Your task to perform on an android device: toggle javascript in the chrome app Image 0: 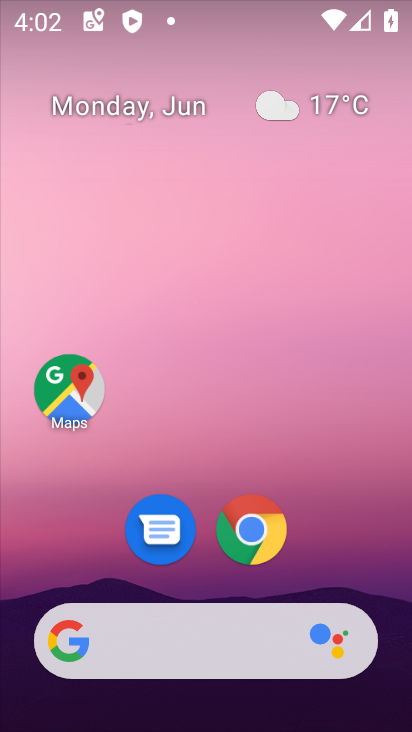
Step 0: click (253, 526)
Your task to perform on an android device: toggle javascript in the chrome app Image 1: 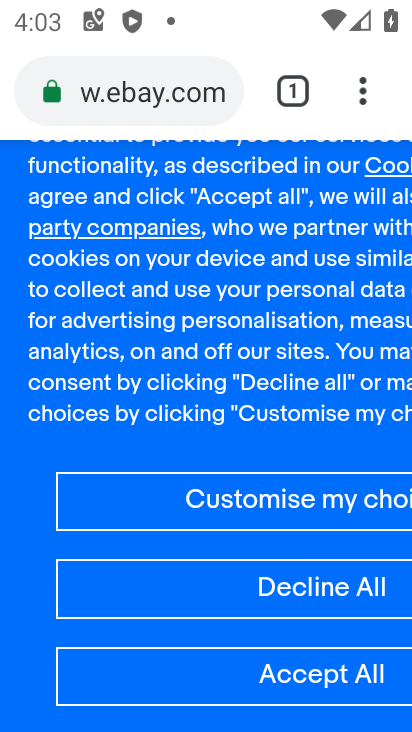
Step 1: click (366, 97)
Your task to perform on an android device: toggle javascript in the chrome app Image 2: 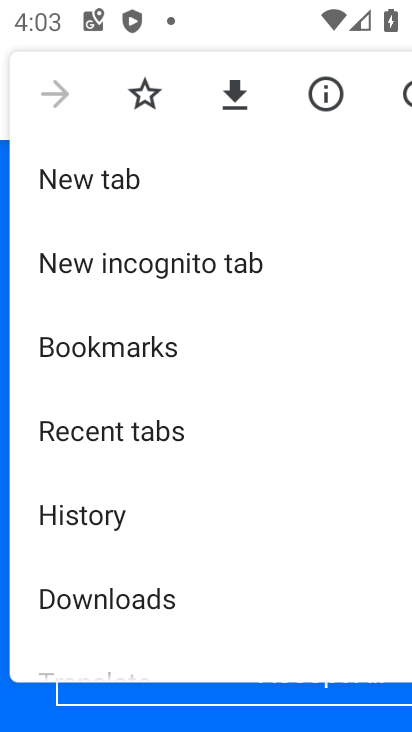
Step 2: drag from (113, 591) to (172, 307)
Your task to perform on an android device: toggle javascript in the chrome app Image 3: 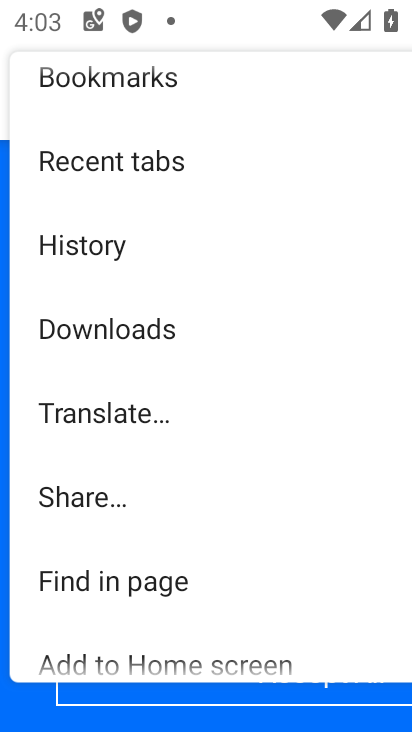
Step 3: drag from (170, 608) to (268, 337)
Your task to perform on an android device: toggle javascript in the chrome app Image 4: 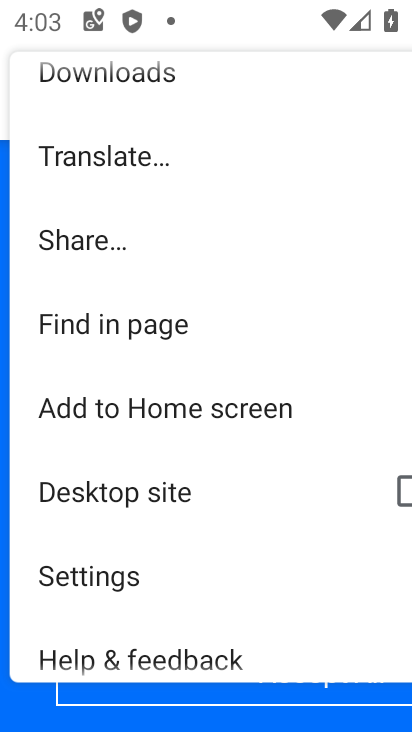
Step 4: click (114, 590)
Your task to perform on an android device: toggle javascript in the chrome app Image 5: 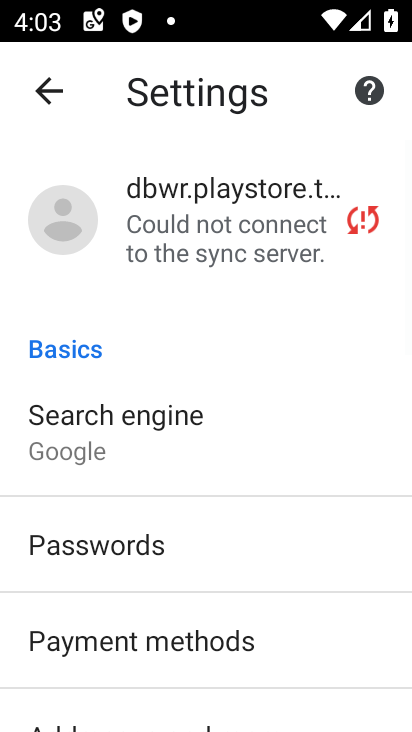
Step 5: drag from (126, 621) to (226, 296)
Your task to perform on an android device: toggle javascript in the chrome app Image 6: 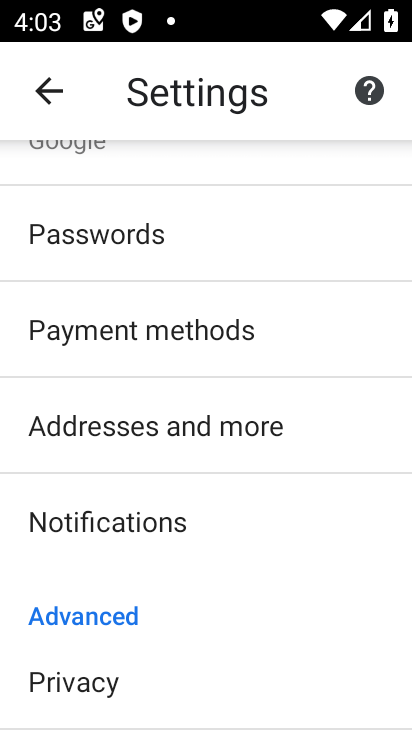
Step 6: drag from (160, 600) to (257, 302)
Your task to perform on an android device: toggle javascript in the chrome app Image 7: 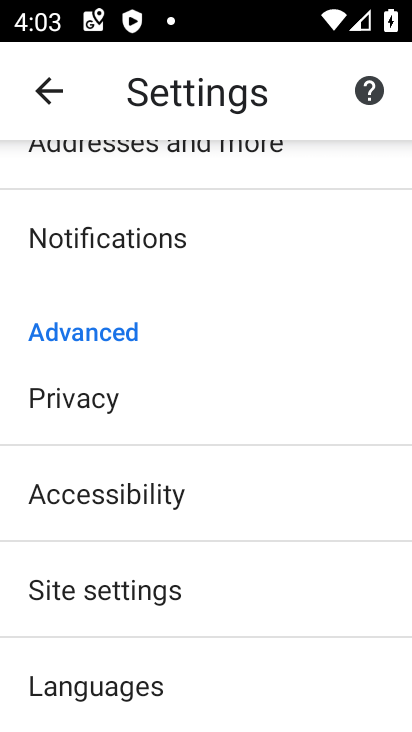
Step 7: click (131, 584)
Your task to perform on an android device: toggle javascript in the chrome app Image 8: 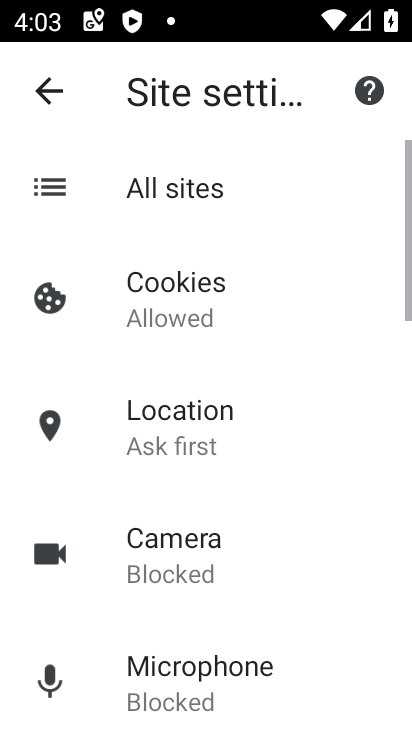
Step 8: drag from (200, 636) to (305, 339)
Your task to perform on an android device: toggle javascript in the chrome app Image 9: 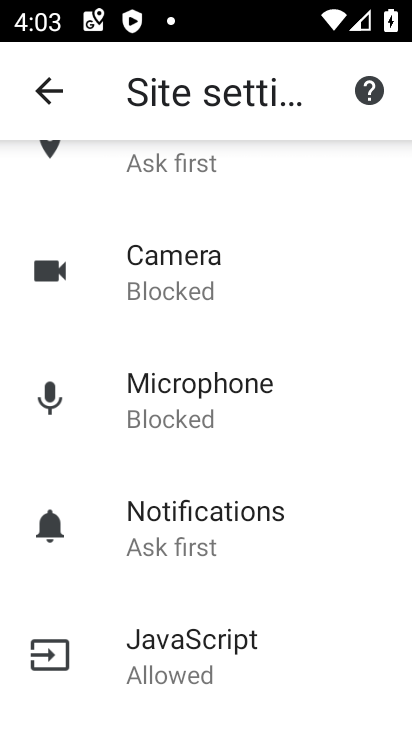
Step 9: click (203, 644)
Your task to perform on an android device: toggle javascript in the chrome app Image 10: 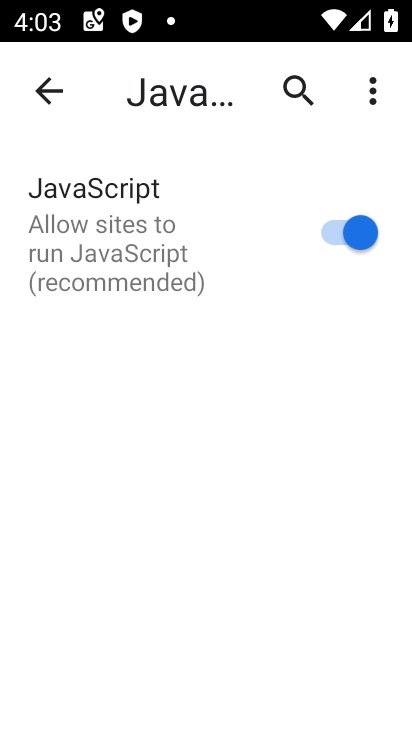
Step 10: click (343, 244)
Your task to perform on an android device: toggle javascript in the chrome app Image 11: 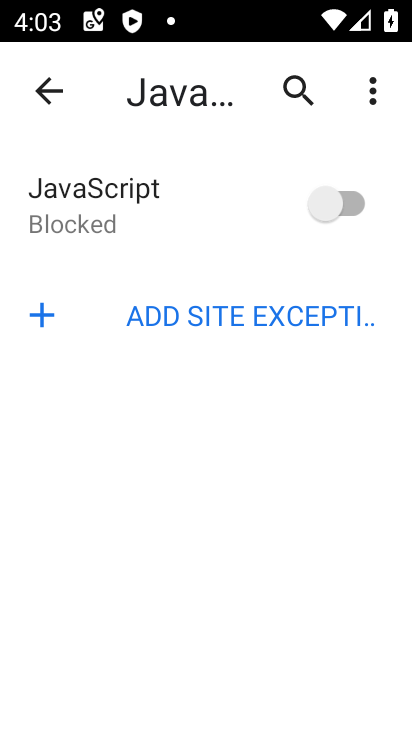
Step 11: task complete